Your task to perform on an android device: check android version Image 0: 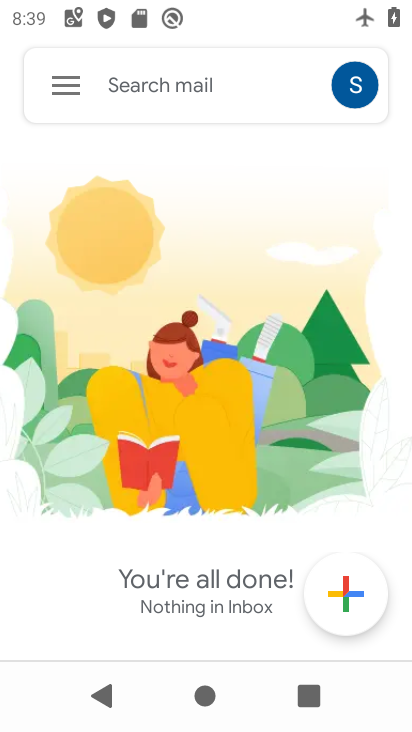
Step 0: press home button
Your task to perform on an android device: check android version Image 1: 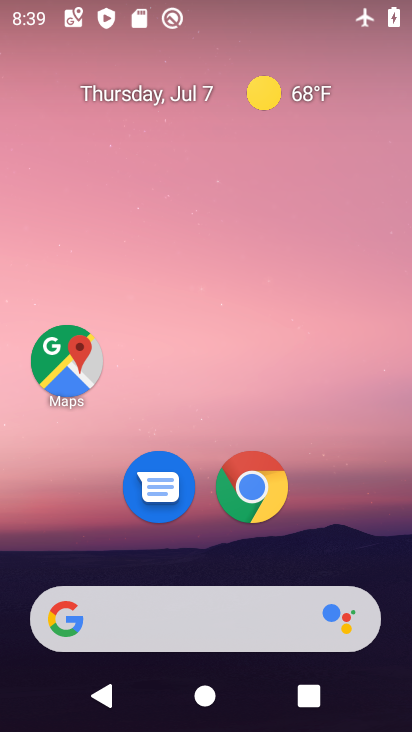
Step 1: drag from (170, 266) to (183, 2)
Your task to perform on an android device: check android version Image 2: 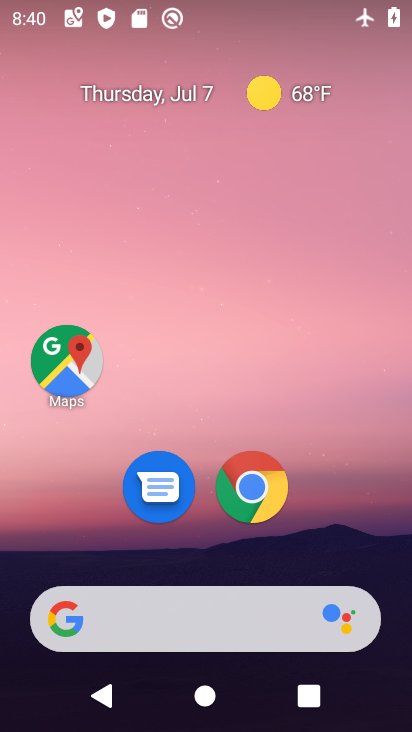
Step 2: drag from (203, 572) to (298, 5)
Your task to perform on an android device: check android version Image 3: 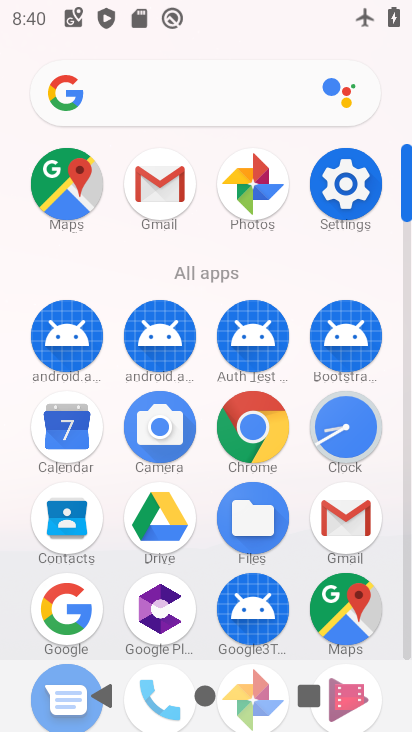
Step 3: click (346, 167)
Your task to perform on an android device: check android version Image 4: 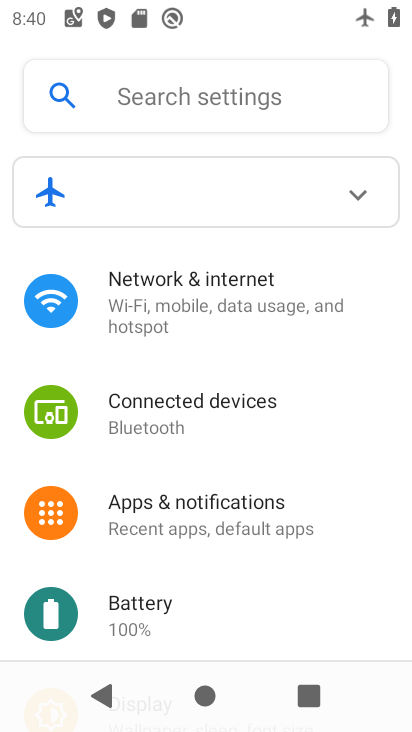
Step 4: drag from (211, 523) to (226, 3)
Your task to perform on an android device: check android version Image 5: 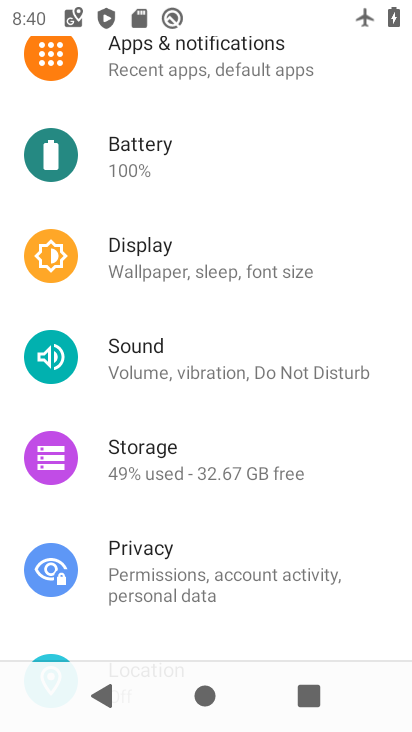
Step 5: drag from (235, 546) to (222, 39)
Your task to perform on an android device: check android version Image 6: 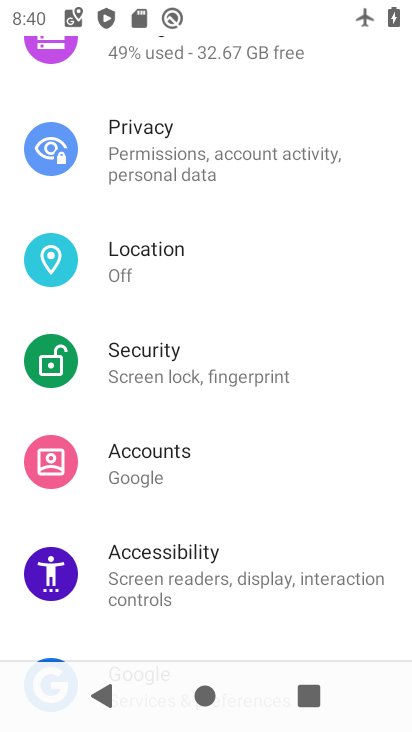
Step 6: drag from (192, 576) to (215, 86)
Your task to perform on an android device: check android version Image 7: 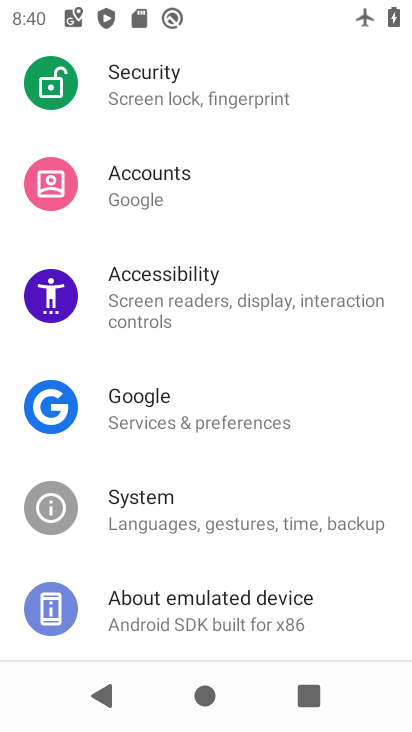
Step 7: drag from (257, 548) to (238, 190)
Your task to perform on an android device: check android version Image 8: 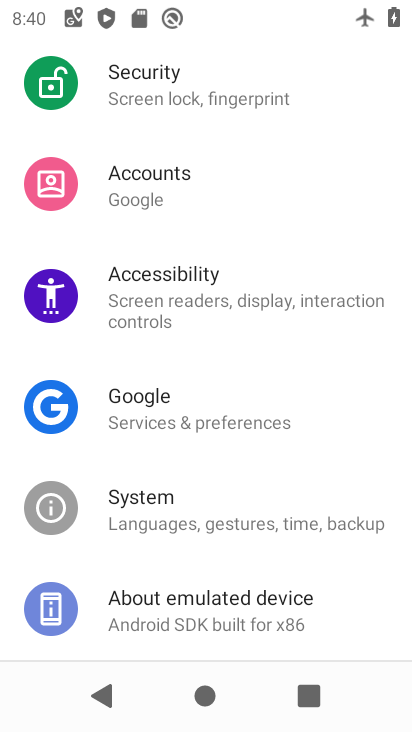
Step 8: click (177, 594)
Your task to perform on an android device: check android version Image 9: 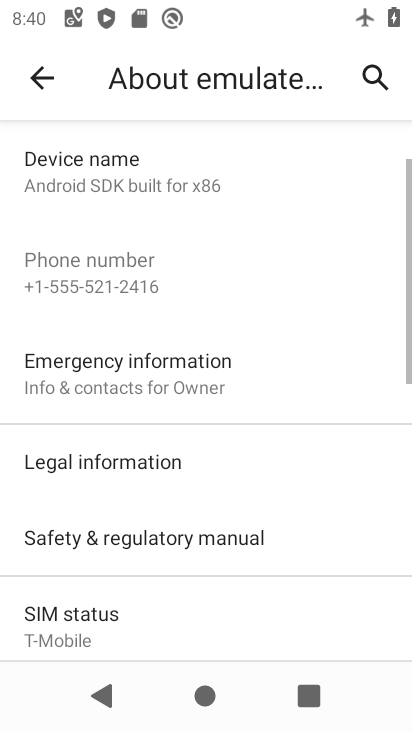
Step 9: drag from (134, 531) to (101, 211)
Your task to perform on an android device: check android version Image 10: 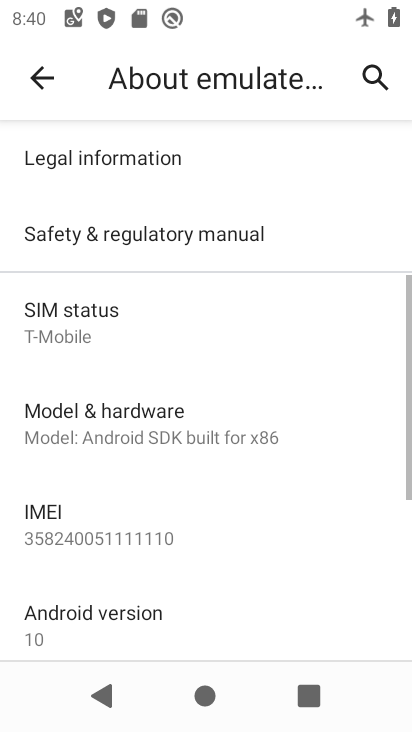
Step 10: click (116, 594)
Your task to perform on an android device: check android version Image 11: 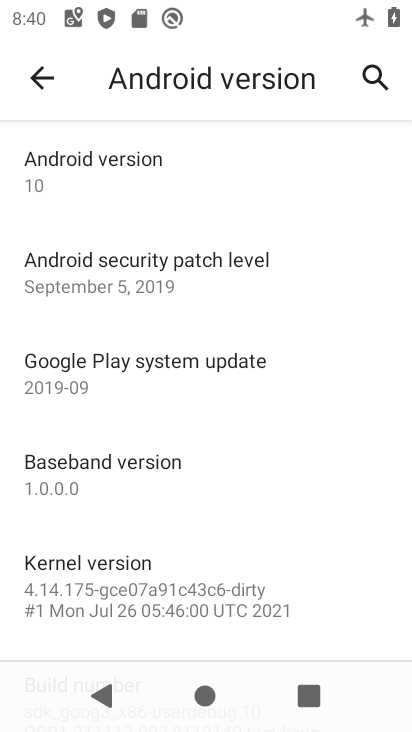
Step 11: task complete